Your task to perform on an android device: Open the calendar app, open the side menu, and click the "Day" option Image 0: 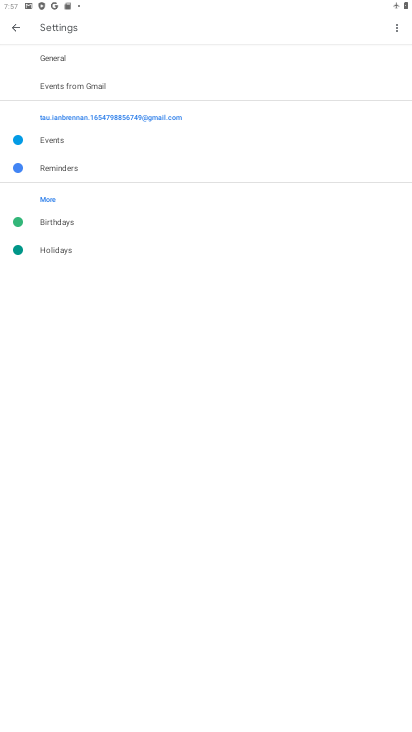
Step 0: drag from (120, 518) to (149, 275)
Your task to perform on an android device: Open the calendar app, open the side menu, and click the "Day" option Image 1: 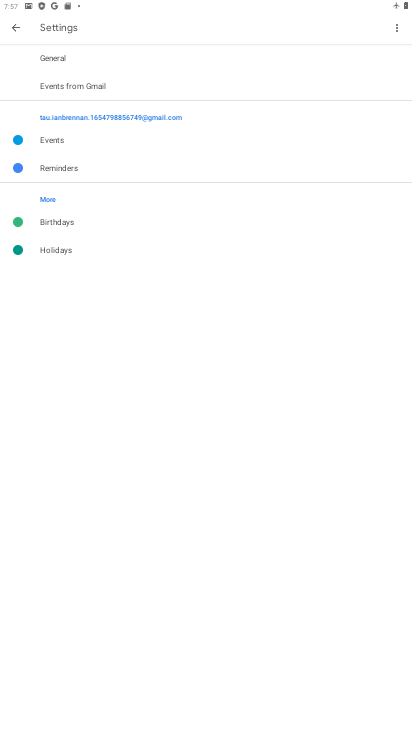
Step 1: press home button
Your task to perform on an android device: Open the calendar app, open the side menu, and click the "Day" option Image 2: 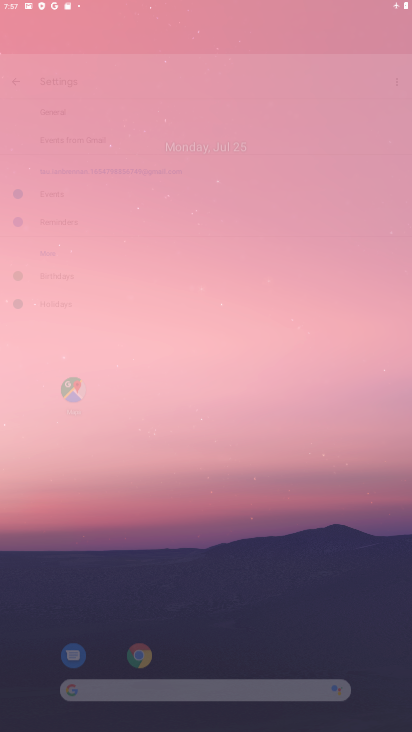
Step 2: drag from (162, 574) to (163, 63)
Your task to perform on an android device: Open the calendar app, open the side menu, and click the "Day" option Image 3: 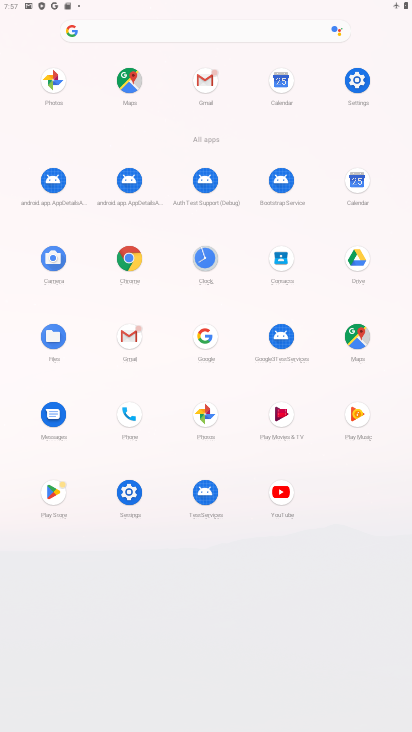
Step 3: click (361, 177)
Your task to perform on an android device: Open the calendar app, open the side menu, and click the "Day" option Image 4: 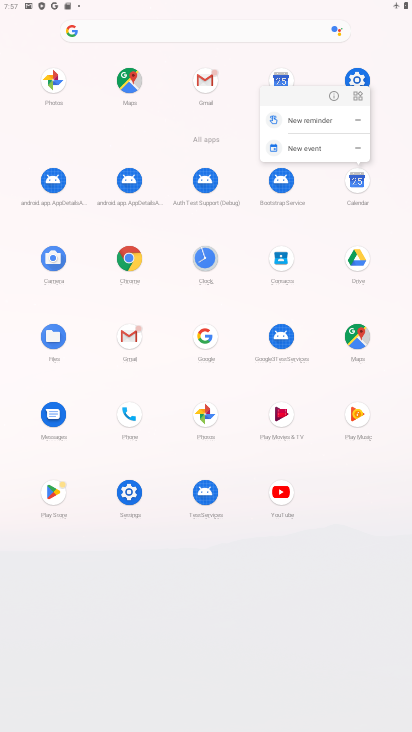
Step 4: click (335, 97)
Your task to perform on an android device: Open the calendar app, open the side menu, and click the "Day" option Image 5: 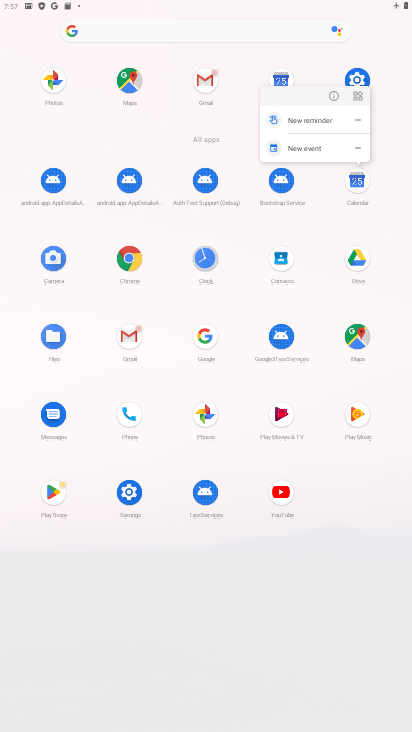
Step 5: click (335, 97)
Your task to perform on an android device: Open the calendar app, open the side menu, and click the "Day" option Image 6: 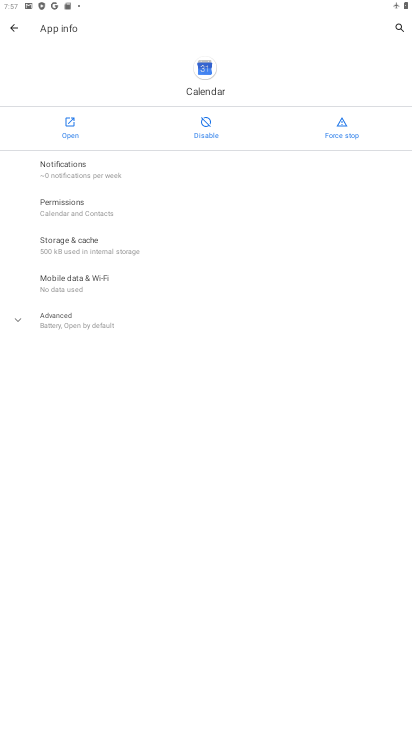
Step 6: click (62, 130)
Your task to perform on an android device: Open the calendar app, open the side menu, and click the "Day" option Image 7: 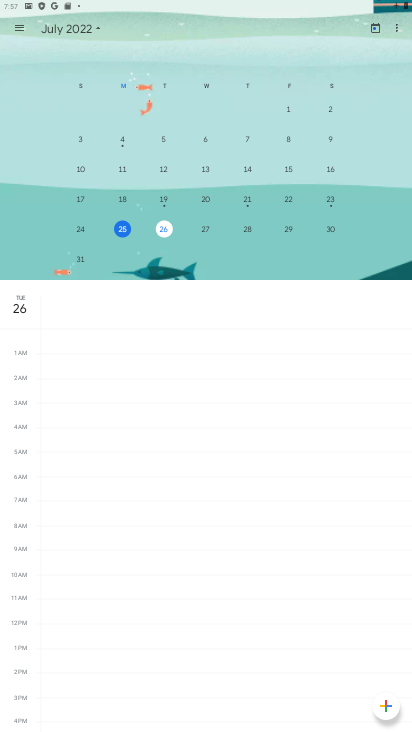
Step 7: click (22, 22)
Your task to perform on an android device: Open the calendar app, open the side menu, and click the "Day" option Image 8: 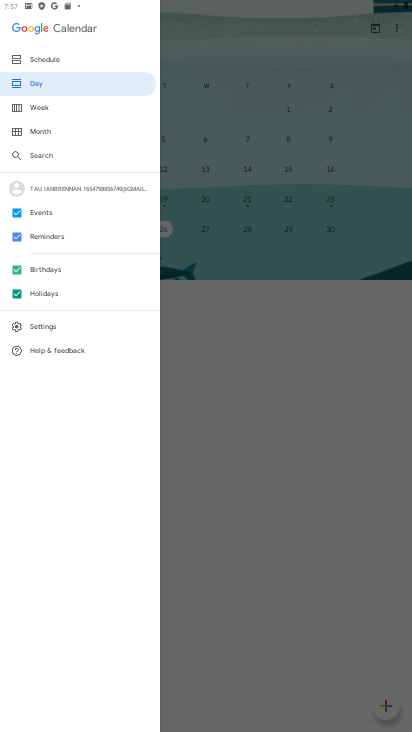
Step 8: click (47, 87)
Your task to perform on an android device: Open the calendar app, open the side menu, and click the "Day" option Image 9: 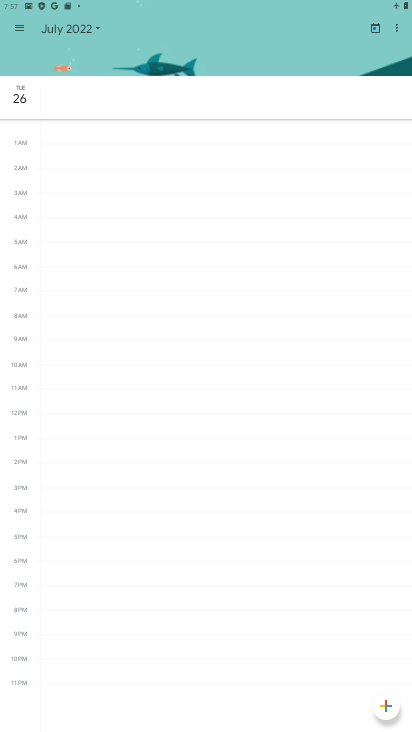
Step 9: task complete